Your task to perform on an android device: turn on data saver in the chrome app Image 0: 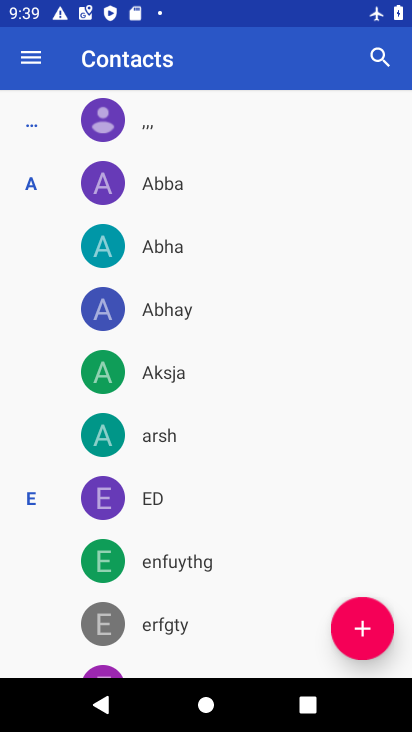
Step 0: press home button
Your task to perform on an android device: turn on data saver in the chrome app Image 1: 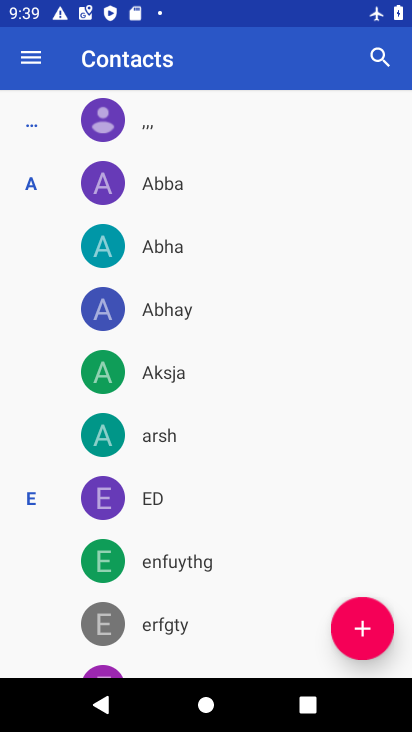
Step 1: press home button
Your task to perform on an android device: turn on data saver in the chrome app Image 2: 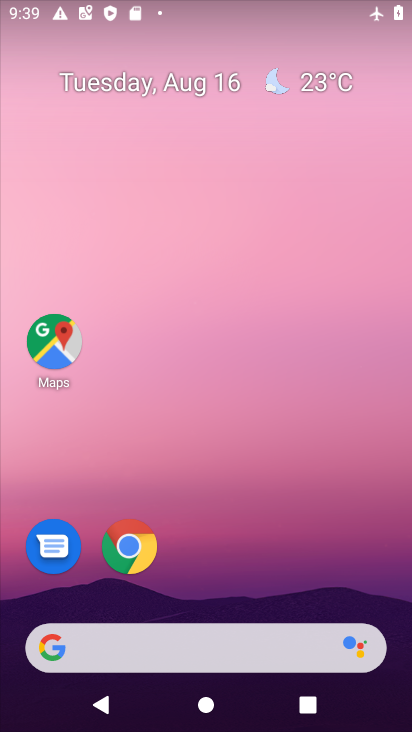
Step 2: click (127, 551)
Your task to perform on an android device: turn on data saver in the chrome app Image 3: 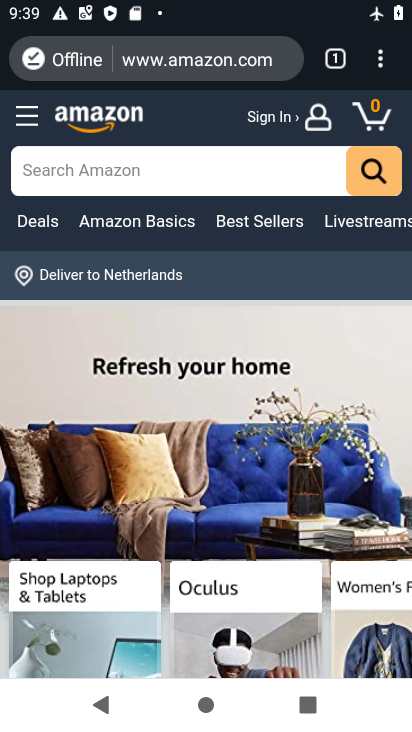
Step 3: press back button
Your task to perform on an android device: turn on data saver in the chrome app Image 4: 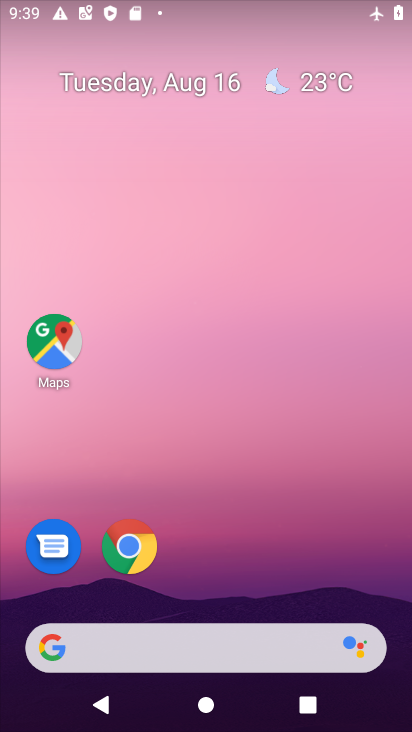
Step 4: click (130, 543)
Your task to perform on an android device: turn on data saver in the chrome app Image 5: 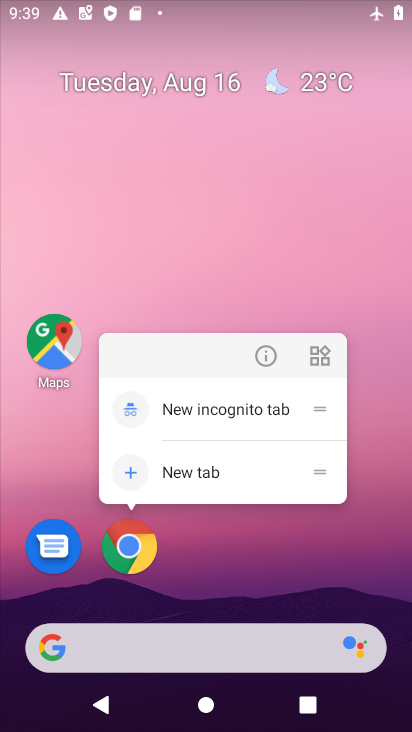
Step 5: click (132, 547)
Your task to perform on an android device: turn on data saver in the chrome app Image 6: 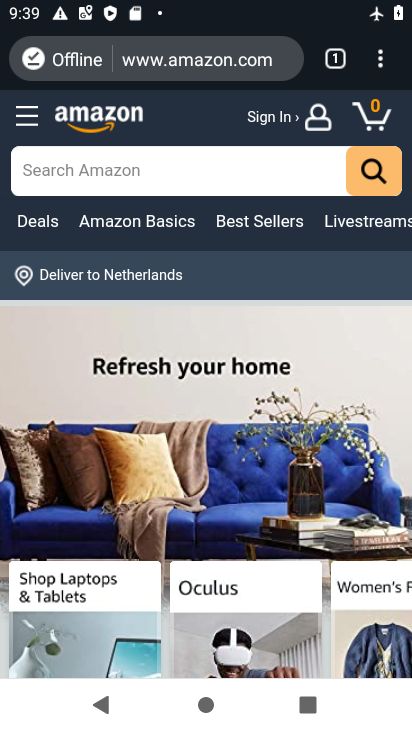
Step 6: click (378, 64)
Your task to perform on an android device: turn on data saver in the chrome app Image 7: 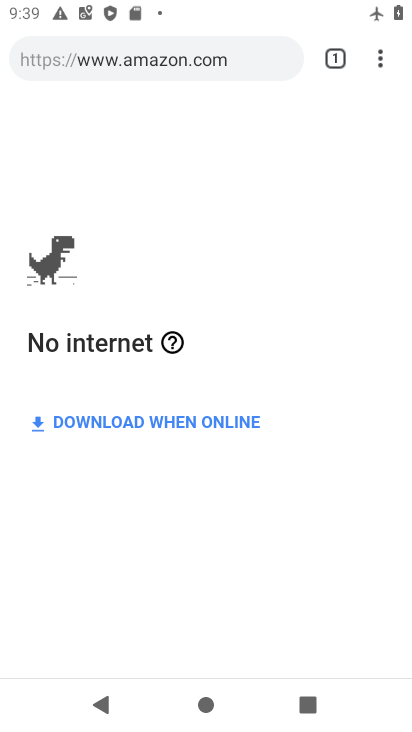
Step 7: click (378, 64)
Your task to perform on an android device: turn on data saver in the chrome app Image 8: 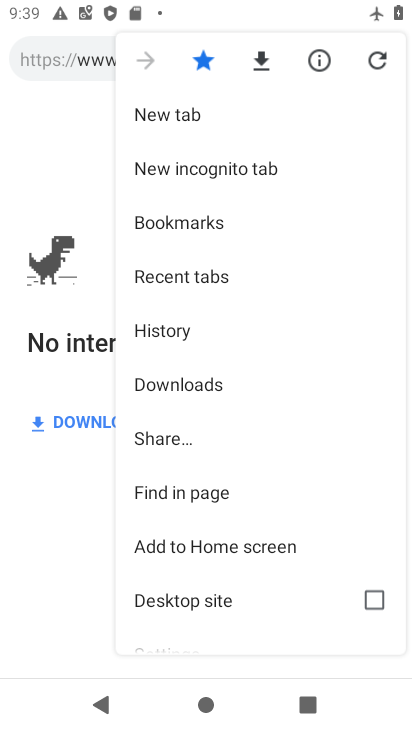
Step 8: drag from (234, 514) to (261, 106)
Your task to perform on an android device: turn on data saver in the chrome app Image 9: 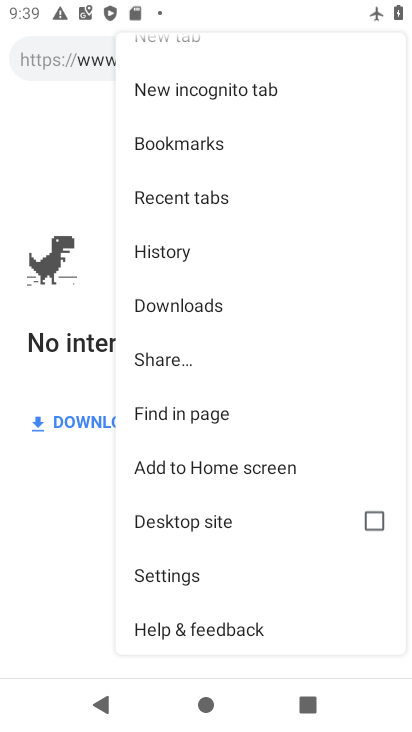
Step 9: click (179, 571)
Your task to perform on an android device: turn on data saver in the chrome app Image 10: 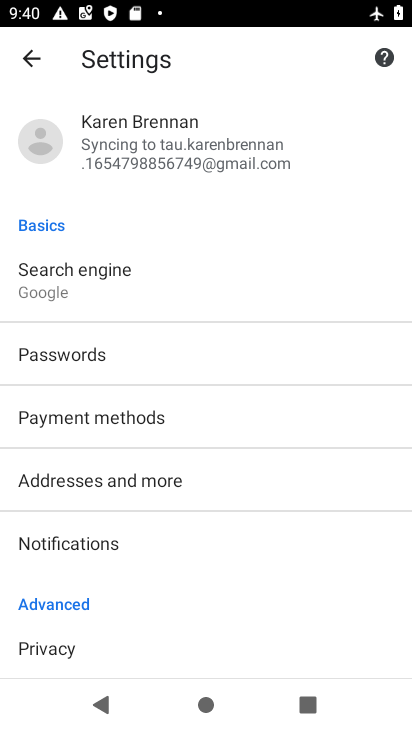
Step 10: drag from (226, 558) to (280, 95)
Your task to perform on an android device: turn on data saver in the chrome app Image 11: 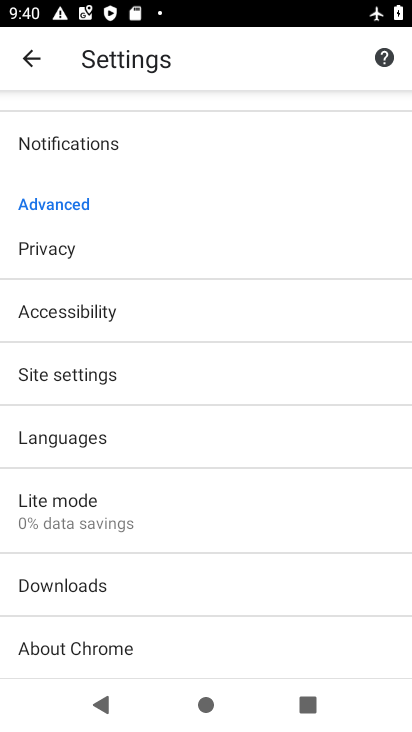
Step 11: click (129, 521)
Your task to perform on an android device: turn on data saver in the chrome app Image 12: 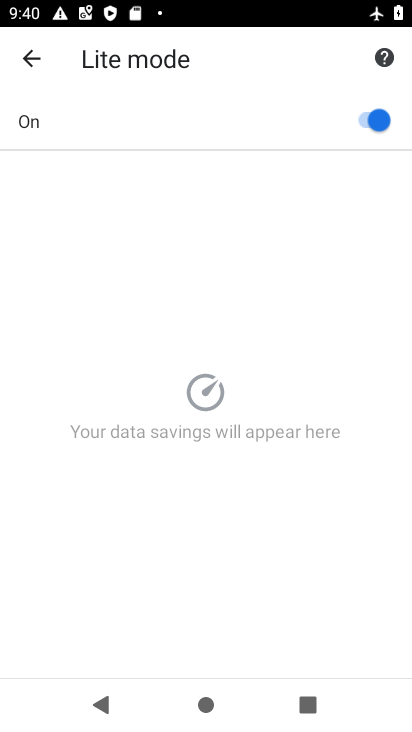
Step 12: task complete